Your task to perform on an android device: open app "Google Translate" (install if not already installed) Image 0: 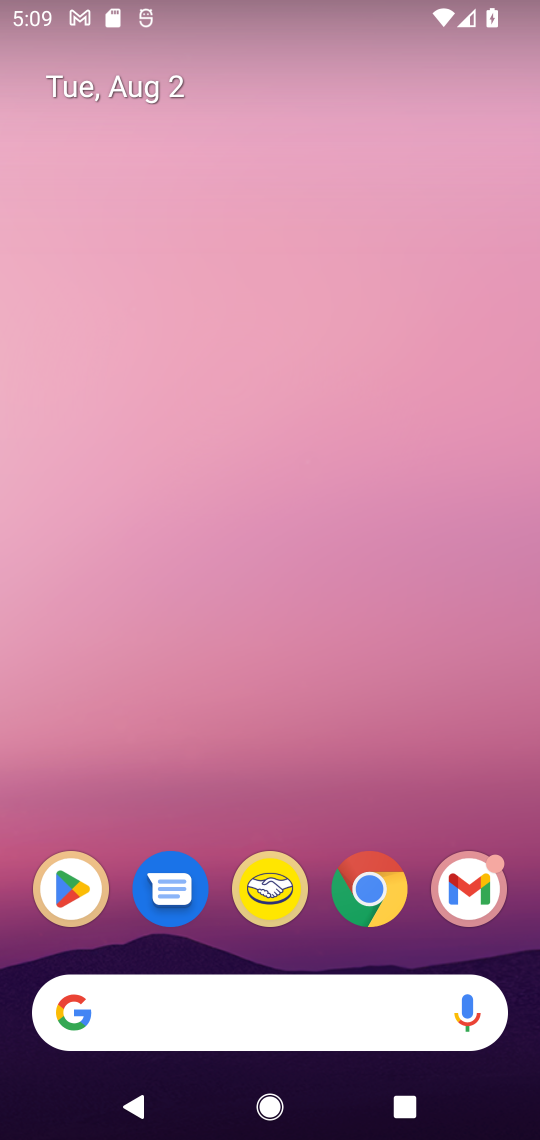
Step 0: drag from (422, 766) to (381, 100)
Your task to perform on an android device: open app "Google Translate" (install if not already installed) Image 1: 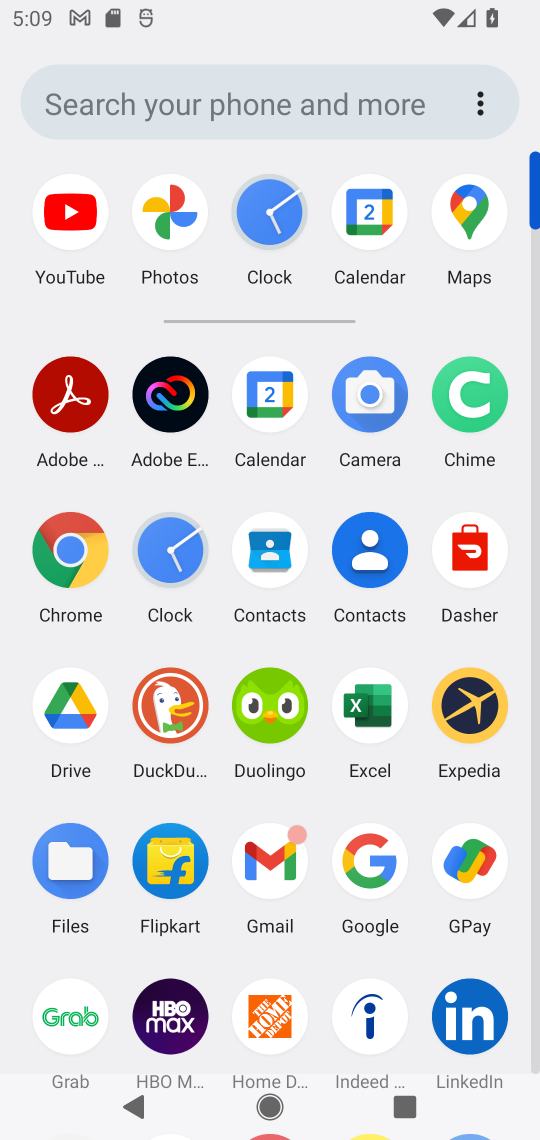
Step 1: drag from (411, 923) to (422, 308)
Your task to perform on an android device: open app "Google Translate" (install if not already installed) Image 2: 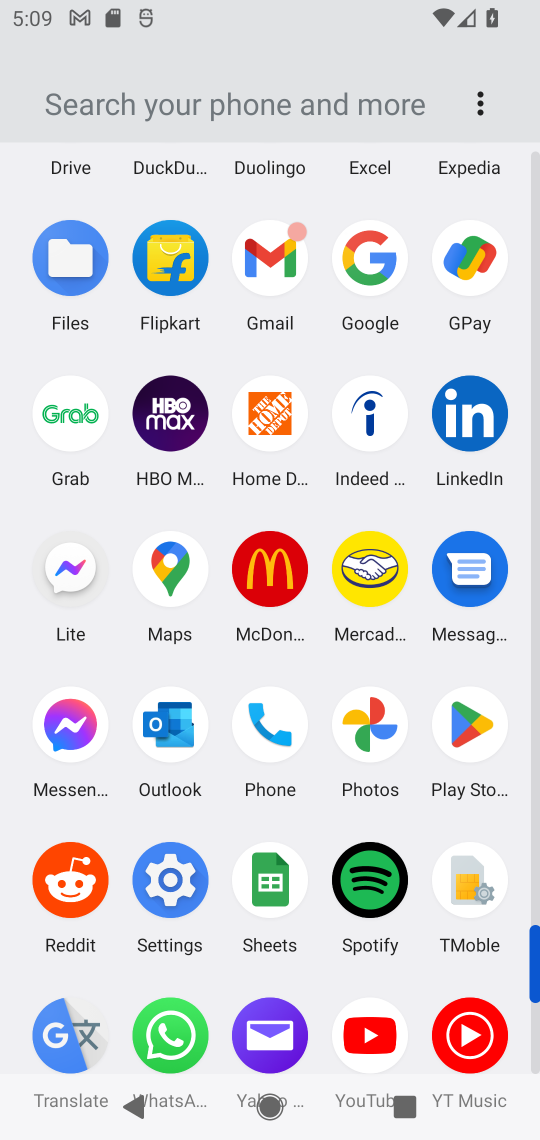
Step 2: click (458, 720)
Your task to perform on an android device: open app "Google Translate" (install if not already installed) Image 3: 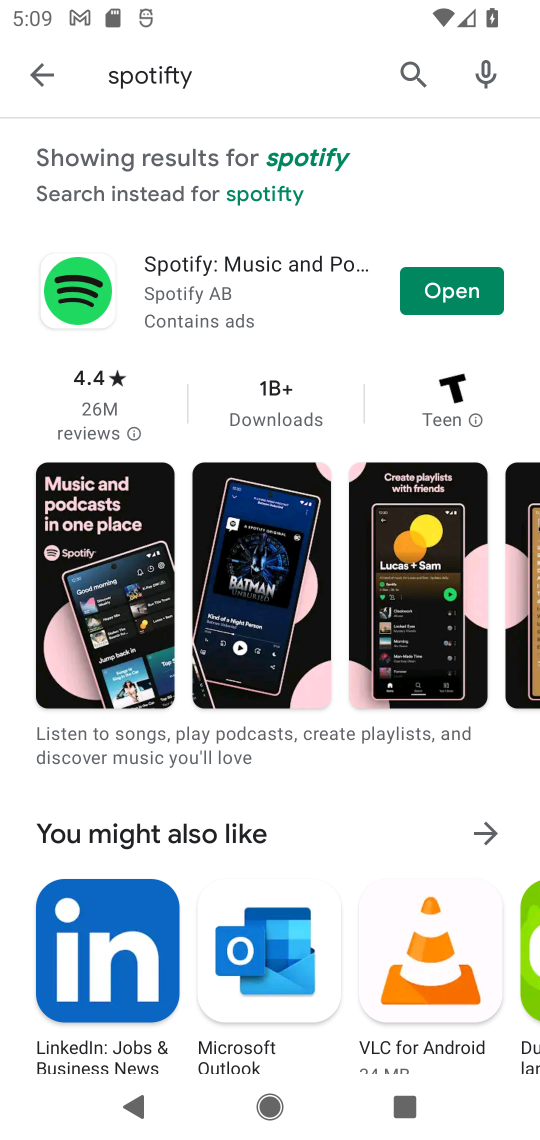
Step 3: click (410, 74)
Your task to perform on an android device: open app "Google Translate" (install if not already installed) Image 4: 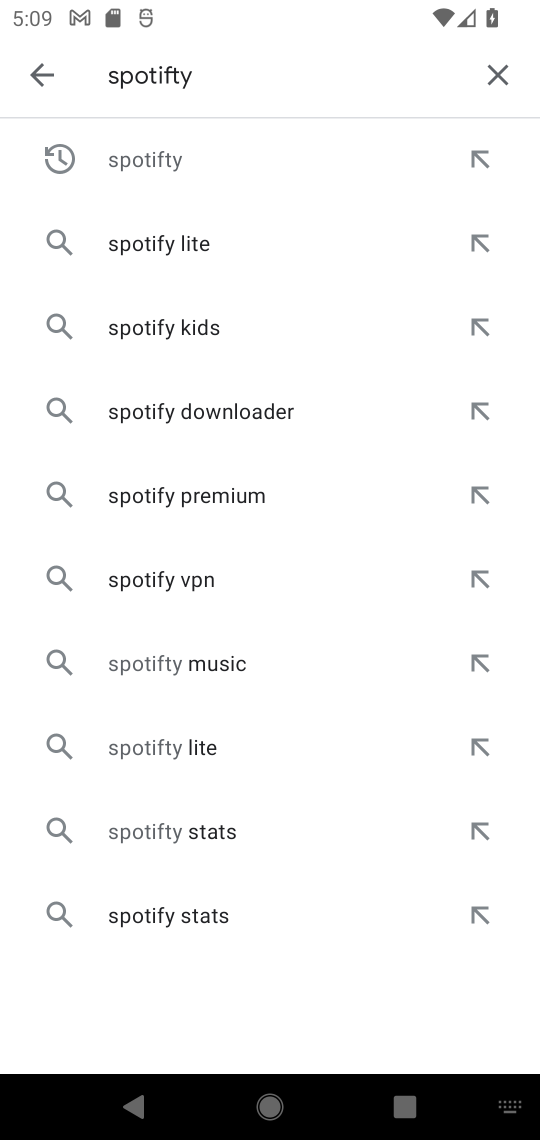
Step 4: click (495, 67)
Your task to perform on an android device: open app "Google Translate" (install if not already installed) Image 5: 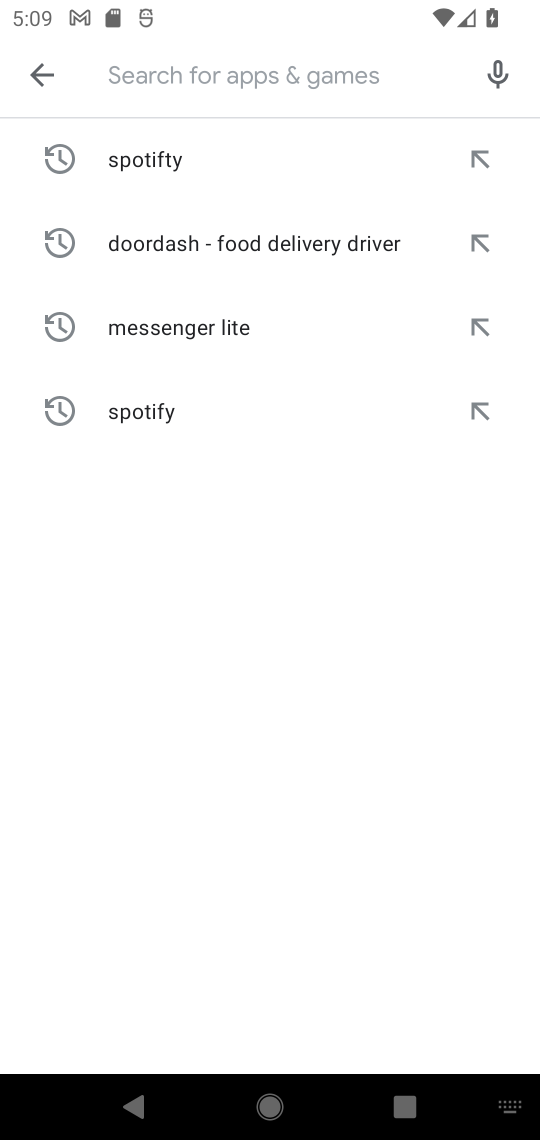
Step 5: click (226, 75)
Your task to perform on an android device: open app "Google Translate" (install if not already installed) Image 6: 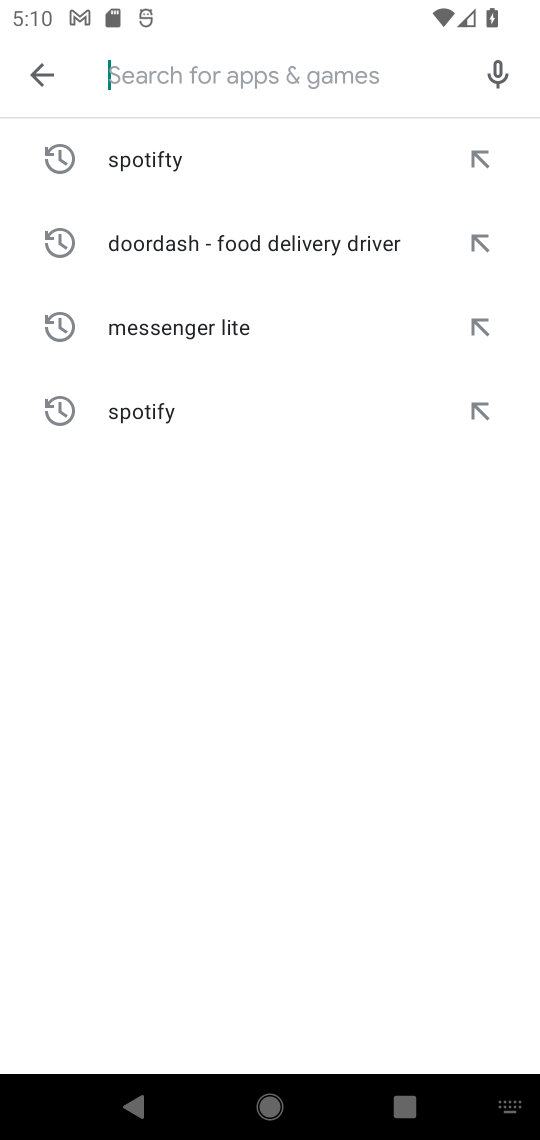
Step 6: type "Google Translate"
Your task to perform on an android device: open app "Google Translate" (install if not already installed) Image 7: 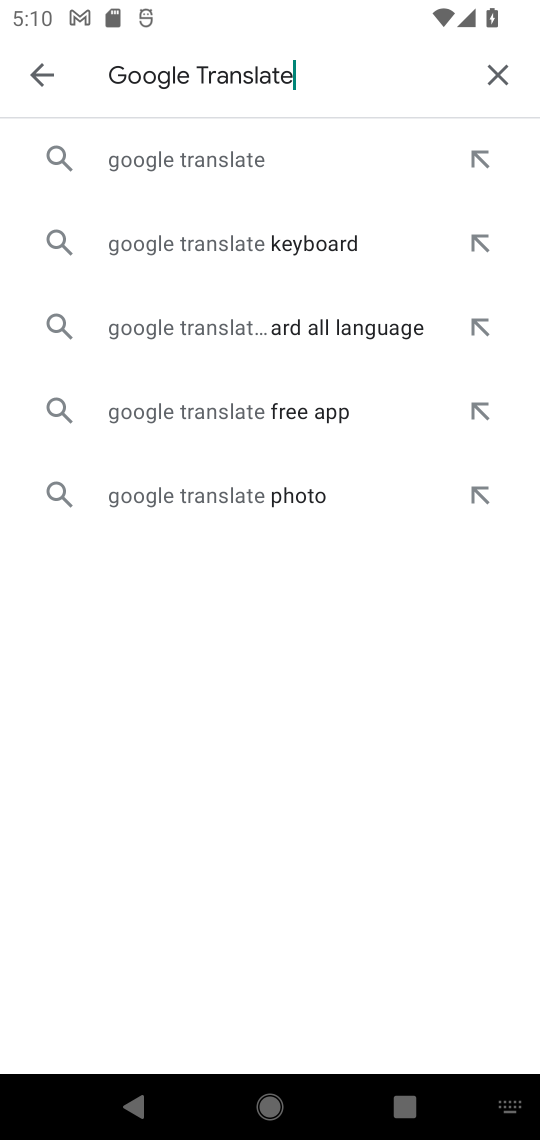
Step 7: click (281, 162)
Your task to perform on an android device: open app "Google Translate" (install if not already installed) Image 8: 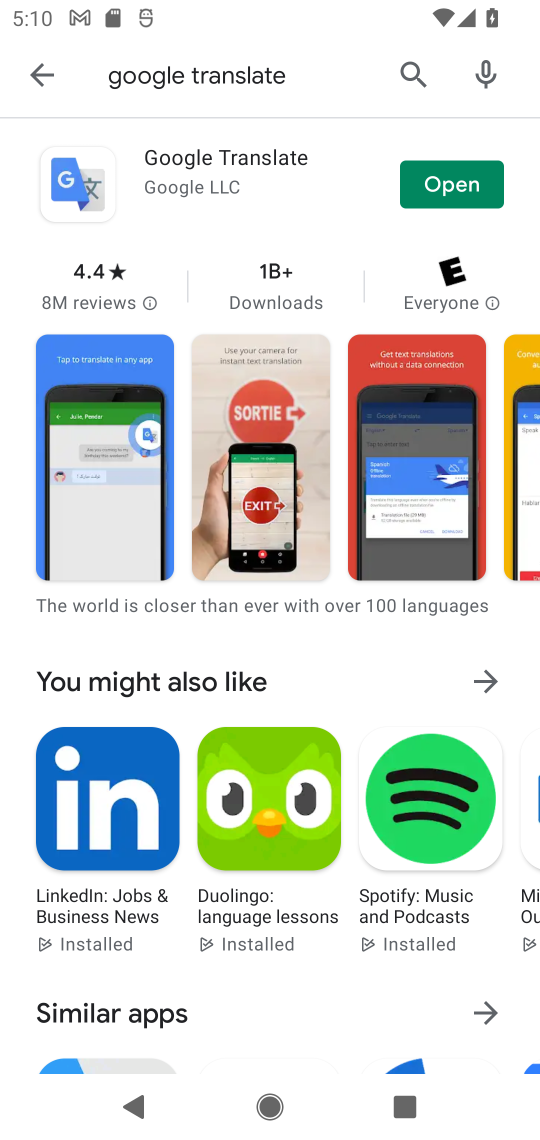
Step 8: task complete